Your task to perform on an android device: add a contact in the contacts app Image 0: 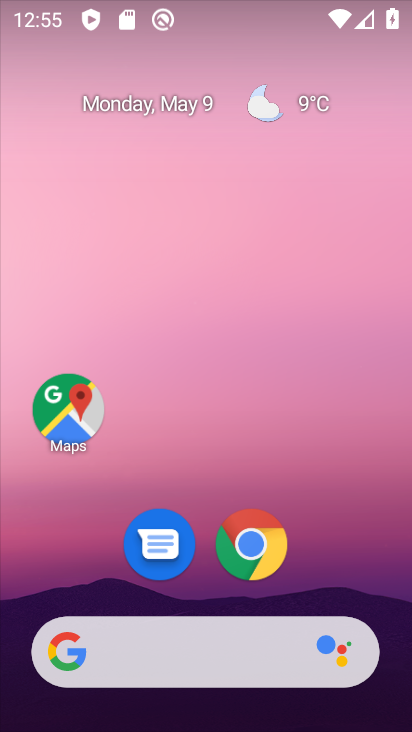
Step 0: drag from (349, 588) to (274, 89)
Your task to perform on an android device: add a contact in the contacts app Image 1: 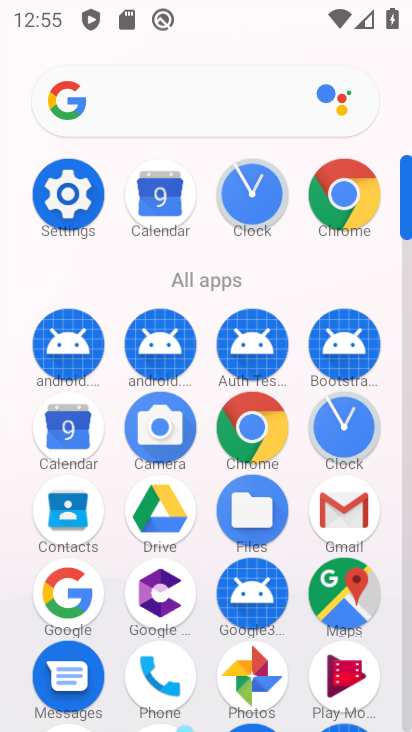
Step 1: click (77, 530)
Your task to perform on an android device: add a contact in the contacts app Image 2: 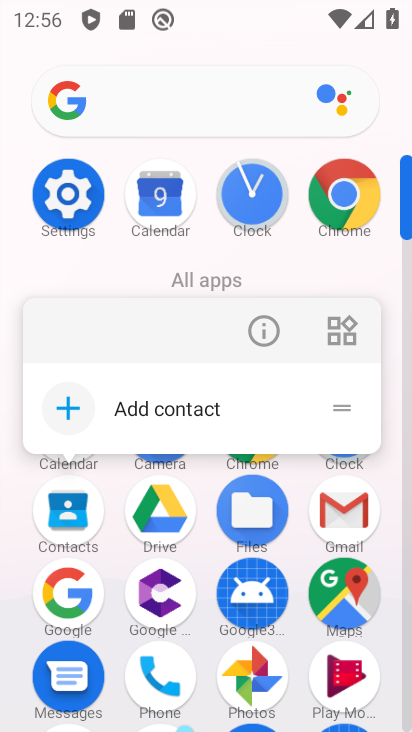
Step 2: click (79, 525)
Your task to perform on an android device: add a contact in the contacts app Image 3: 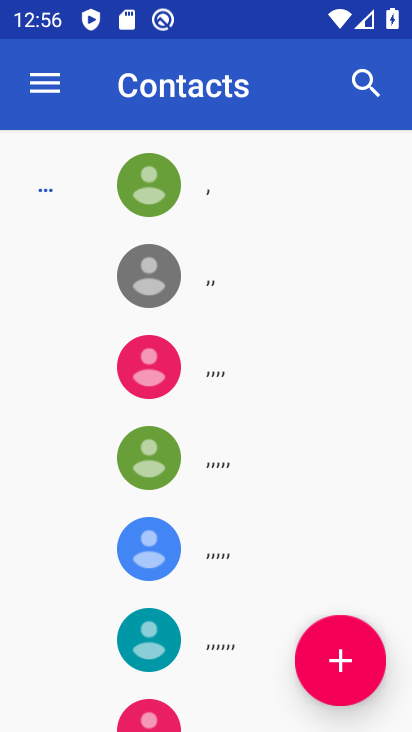
Step 3: click (351, 646)
Your task to perform on an android device: add a contact in the contacts app Image 4: 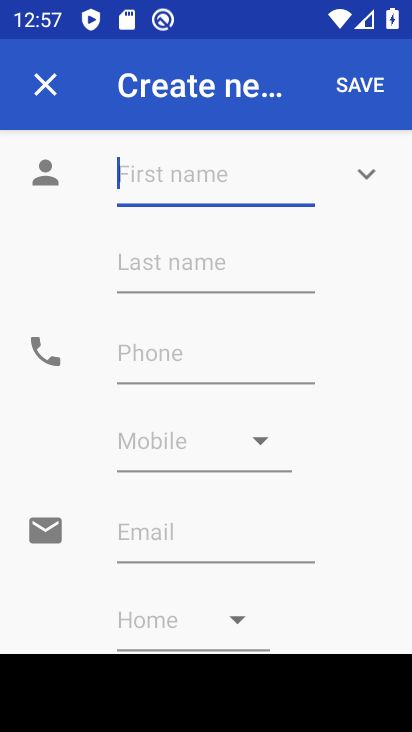
Step 4: type "jnm"
Your task to perform on an android device: add a contact in the contacts app Image 5: 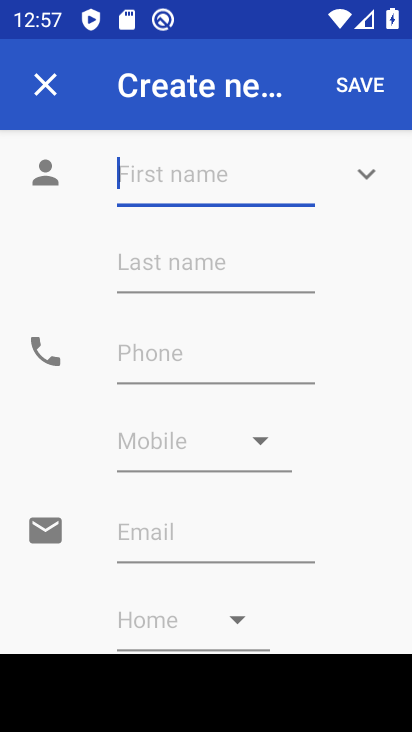
Step 5: click (206, 346)
Your task to perform on an android device: add a contact in the contacts app Image 6: 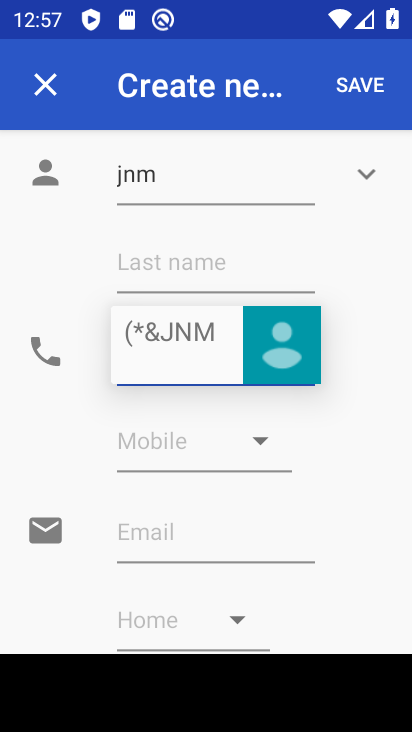
Step 6: type "9990009999"
Your task to perform on an android device: add a contact in the contacts app Image 7: 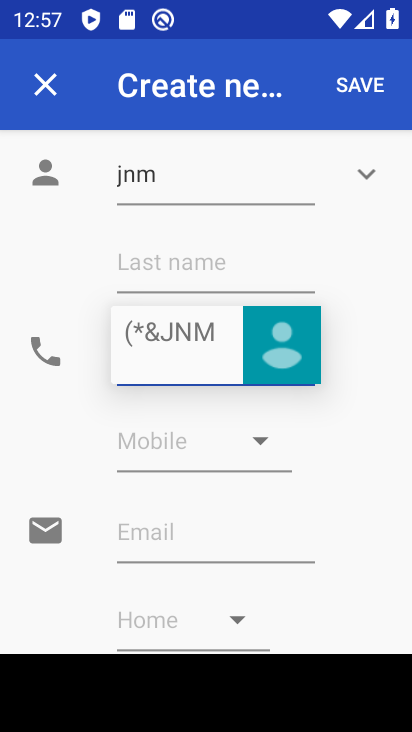
Step 7: click (332, 67)
Your task to perform on an android device: add a contact in the contacts app Image 8: 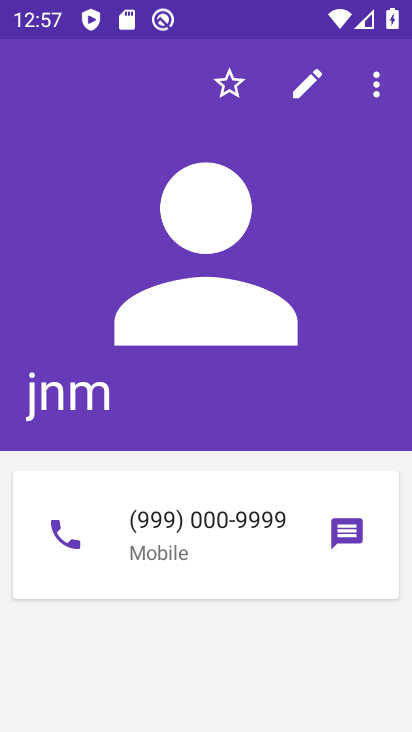
Step 8: task complete